Your task to perform on an android device: Open Chrome and go to settings Image 0: 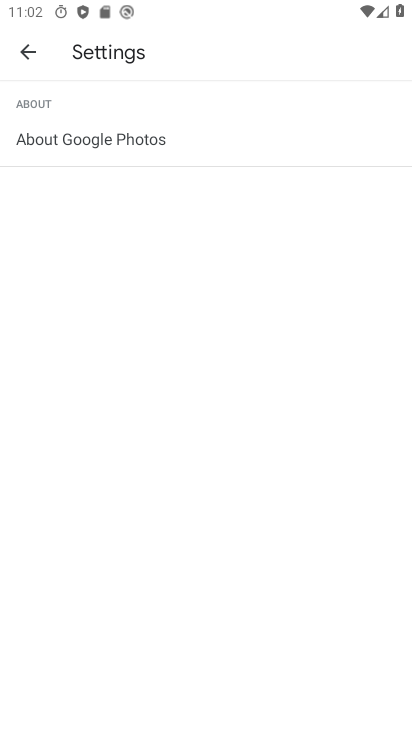
Step 0: press home button
Your task to perform on an android device: Open Chrome and go to settings Image 1: 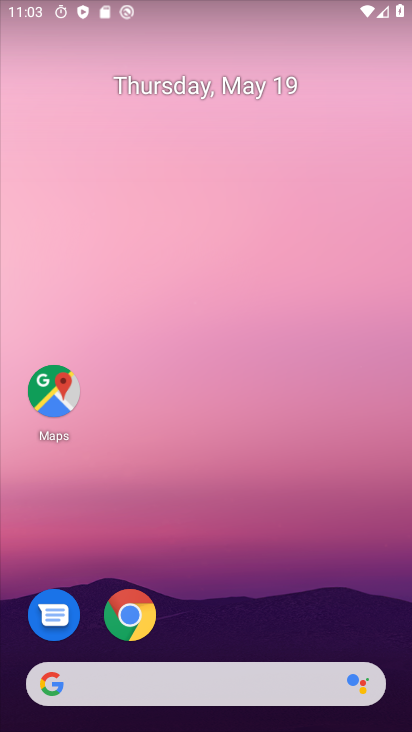
Step 1: click (129, 620)
Your task to perform on an android device: Open Chrome and go to settings Image 2: 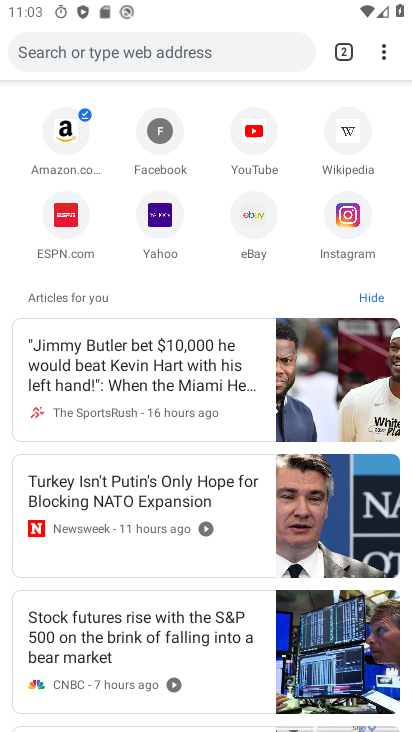
Step 2: click (382, 56)
Your task to perform on an android device: Open Chrome and go to settings Image 3: 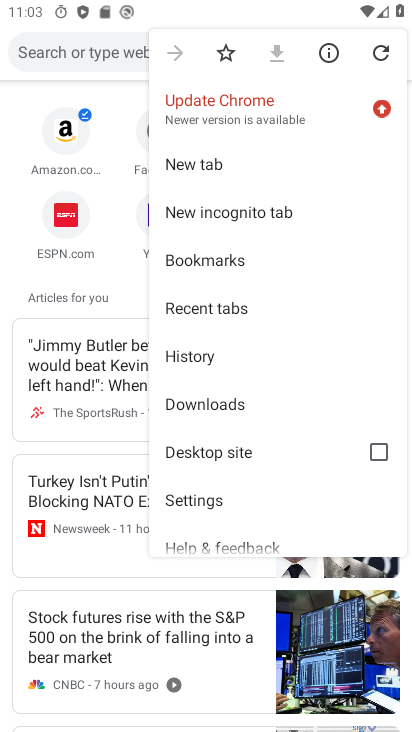
Step 3: click (240, 494)
Your task to perform on an android device: Open Chrome and go to settings Image 4: 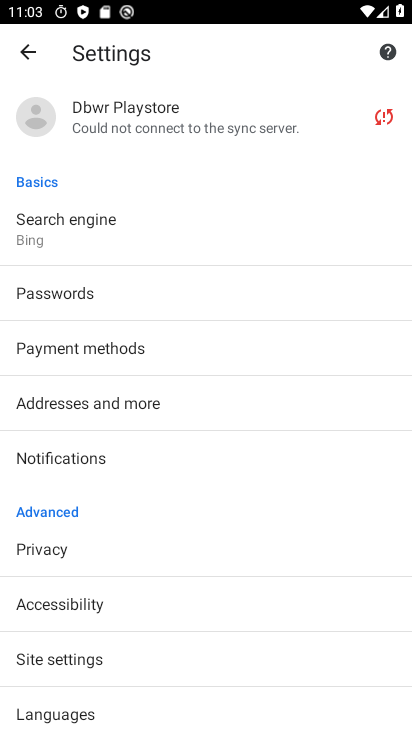
Step 4: task complete